Your task to perform on an android device: Open Android settings Image 0: 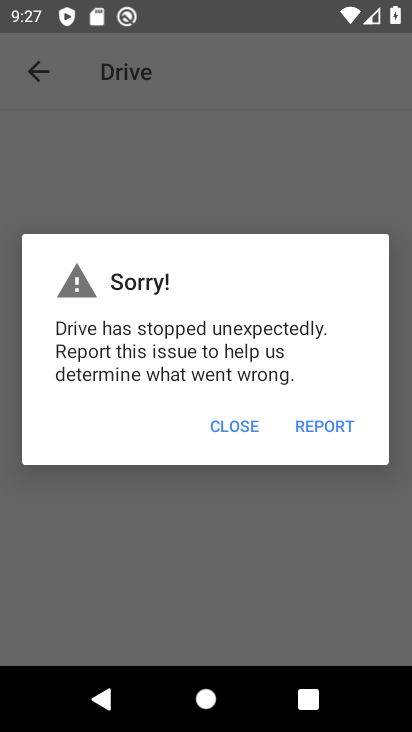
Step 0: press home button
Your task to perform on an android device: Open Android settings Image 1: 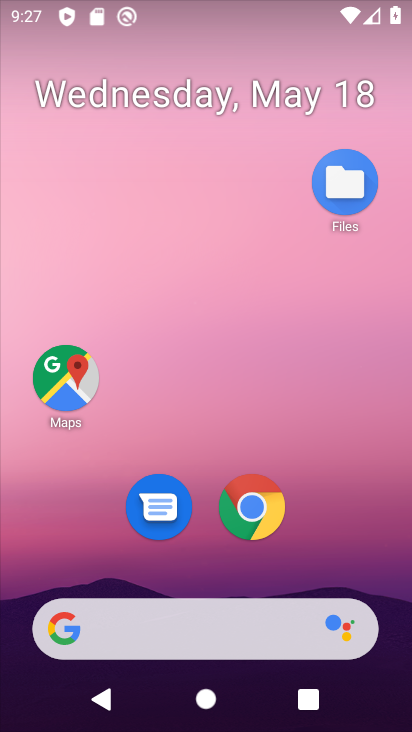
Step 1: drag from (332, 541) to (412, 98)
Your task to perform on an android device: Open Android settings Image 2: 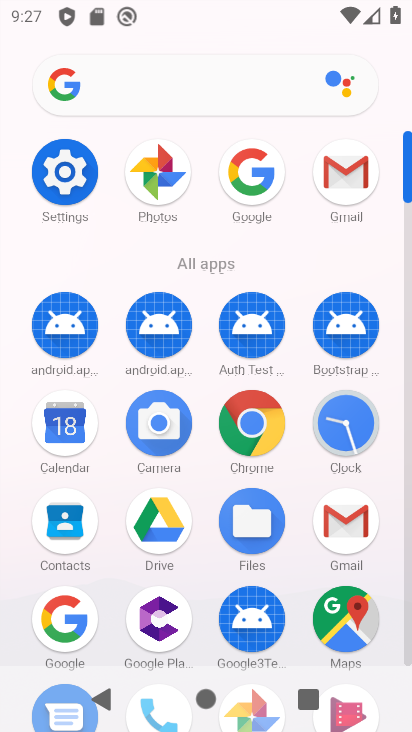
Step 2: click (81, 188)
Your task to perform on an android device: Open Android settings Image 3: 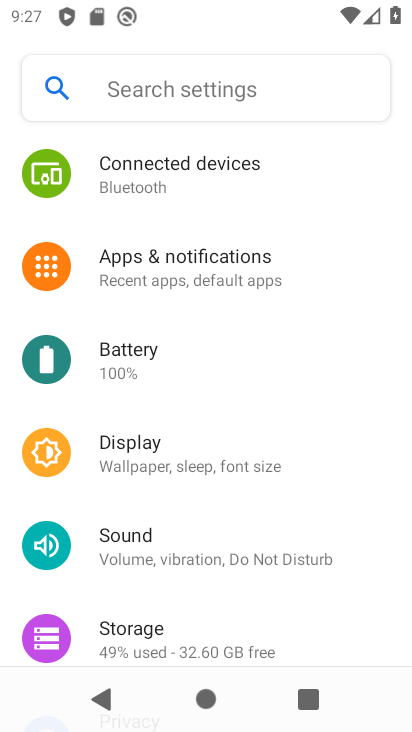
Step 3: task complete